Your task to perform on an android device: Clear all items from cart on costco. Search for "bose quietcomfort 35" on costco, select the first entry, add it to the cart, then select checkout. Image 0: 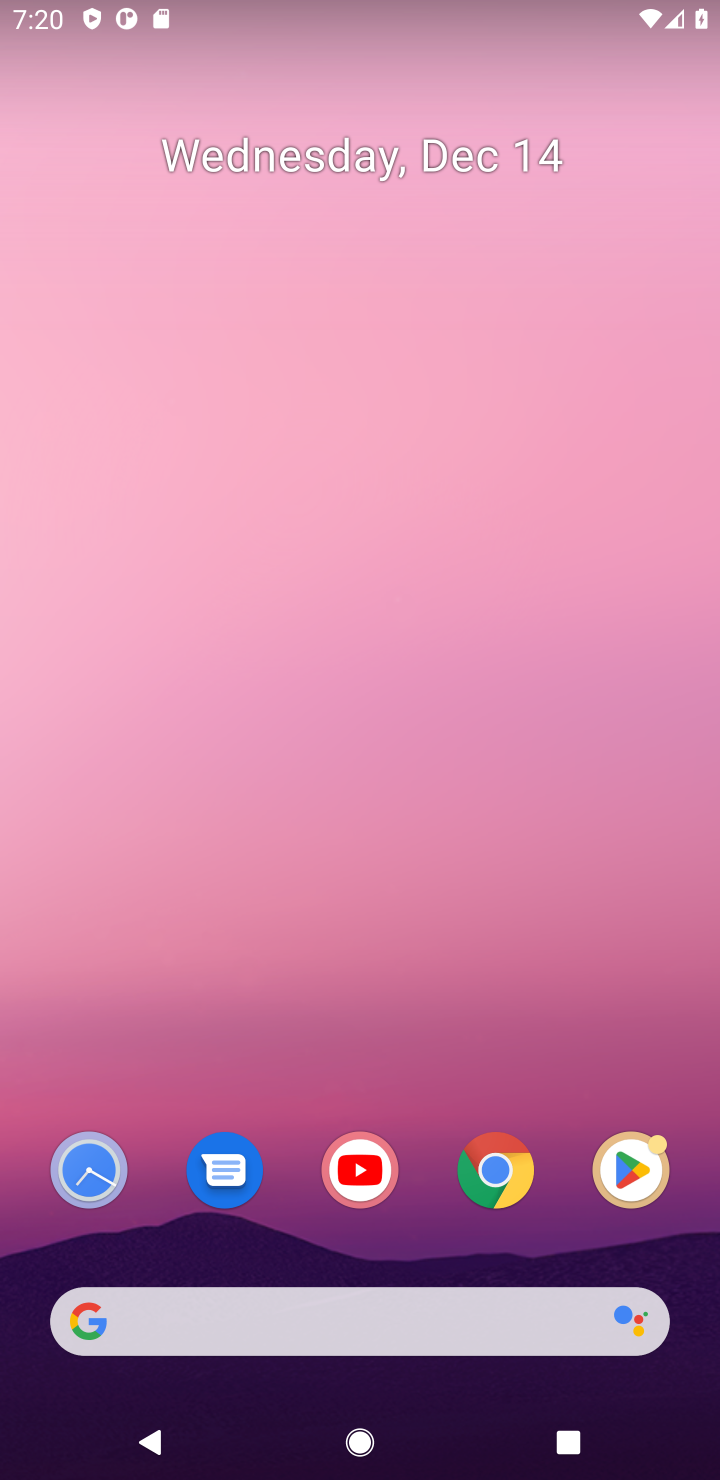
Step 0: click (488, 1187)
Your task to perform on an android device: Clear all items from cart on costco. Search for "bose quietcomfort 35" on costco, select the first entry, add it to the cart, then select checkout. Image 1: 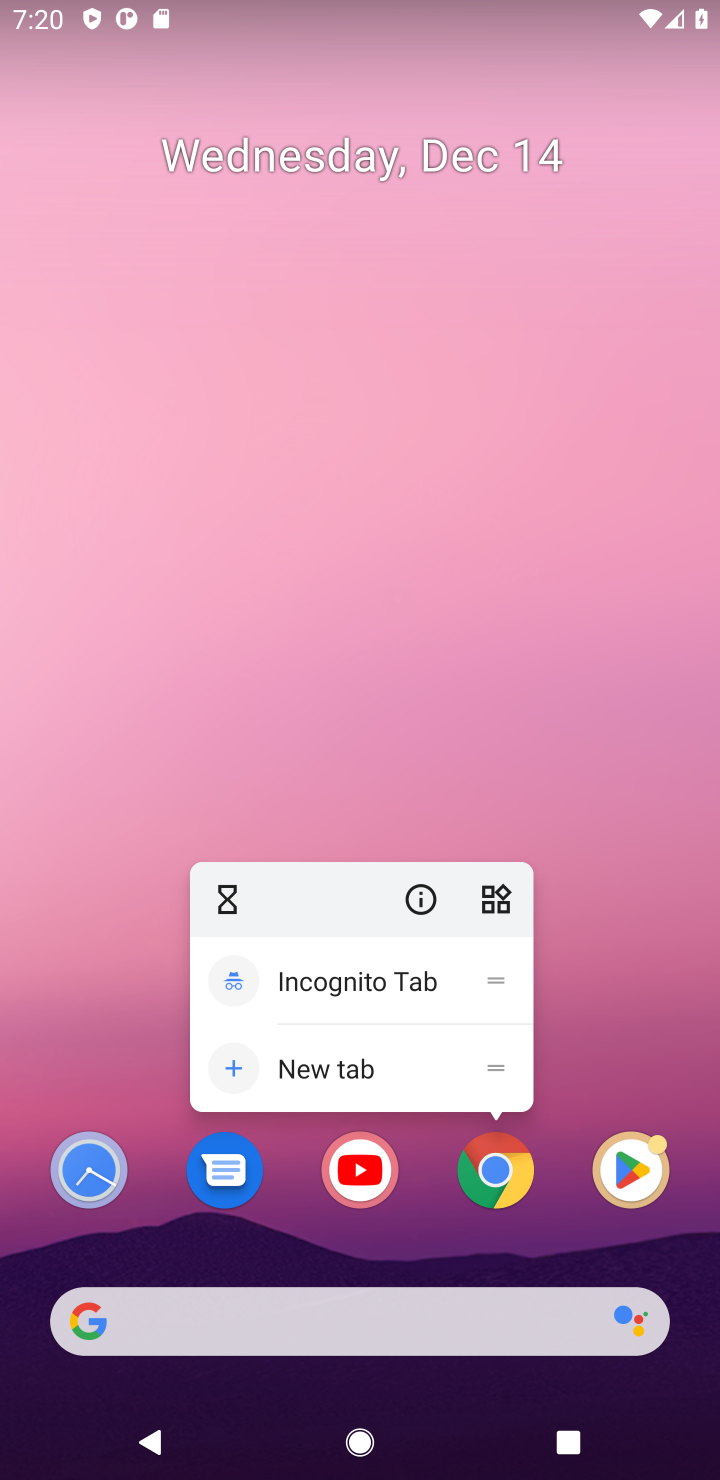
Step 1: click (488, 1187)
Your task to perform on an android device: Clear all items from cart on costco. Search for "bose quietcomfort 35" on costco, select the first entry, add it to the cart, then select checkout. Image 2: 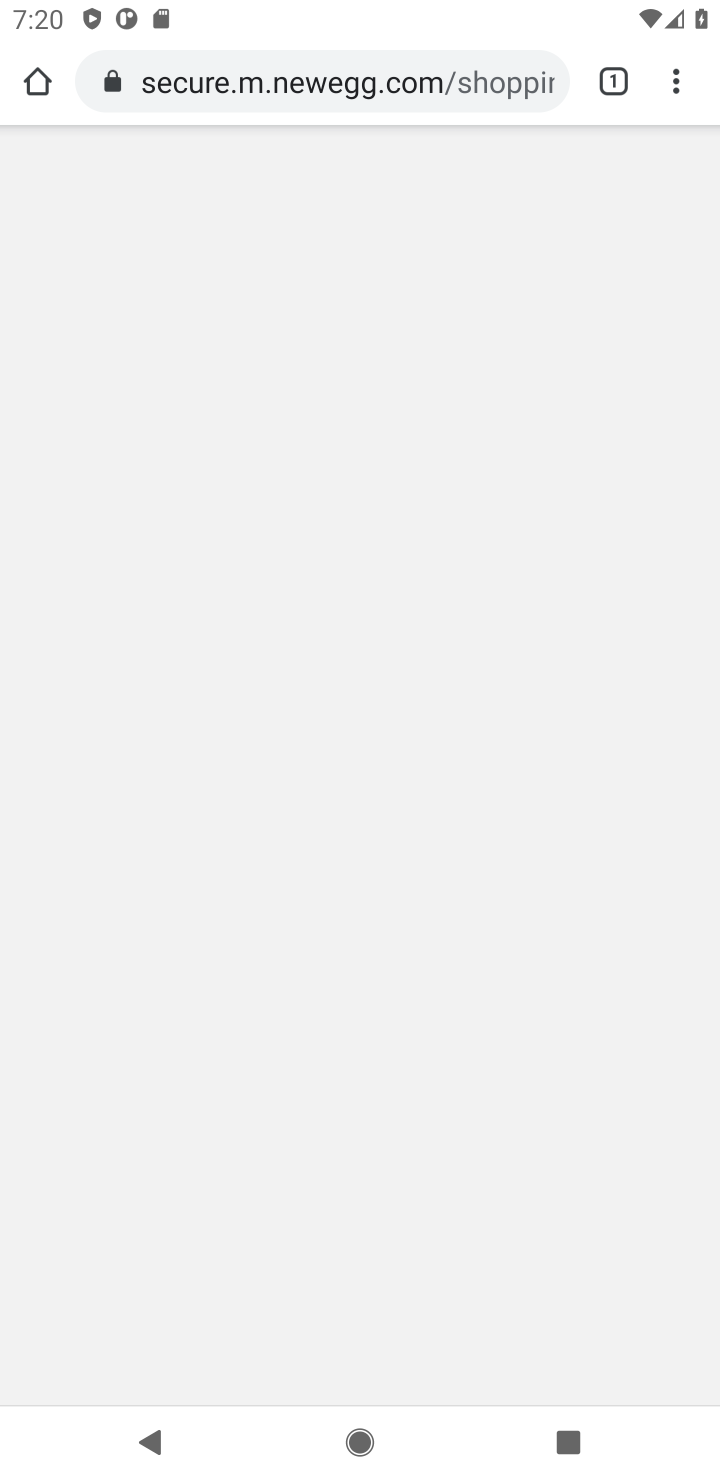
Step 2: click (403, 85)
Your task to perform on an android device: Clear all items from cart on costco. Search for "bose quietcomfort 35" on costco, select the first entry, add it to the cart, then select checkout. Image 3: 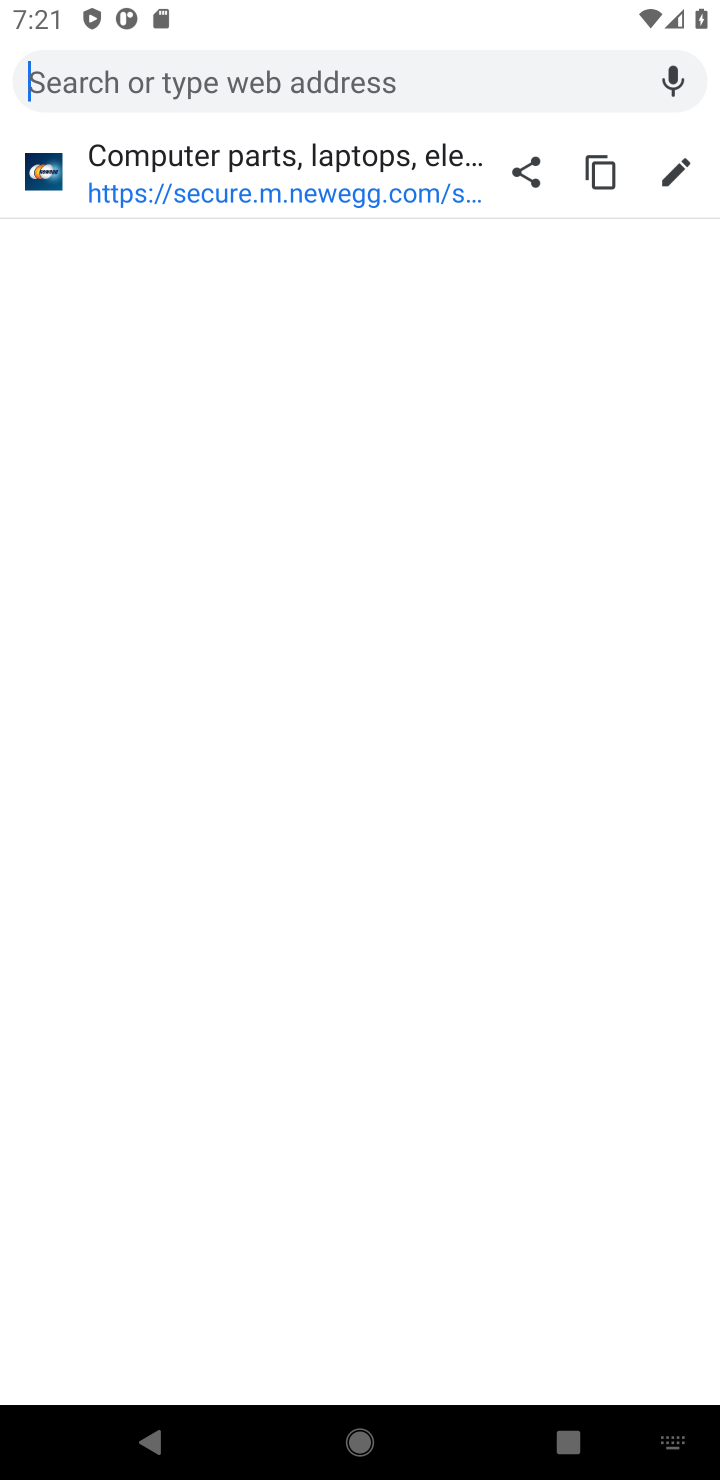
Step 3: type "costco"
Your task to perform on an android device: Clear all items from cart on costco. Search for "bose quietcomfort 35" on costco, select the first entry, add it to the cart, then select checkout. Image 4: 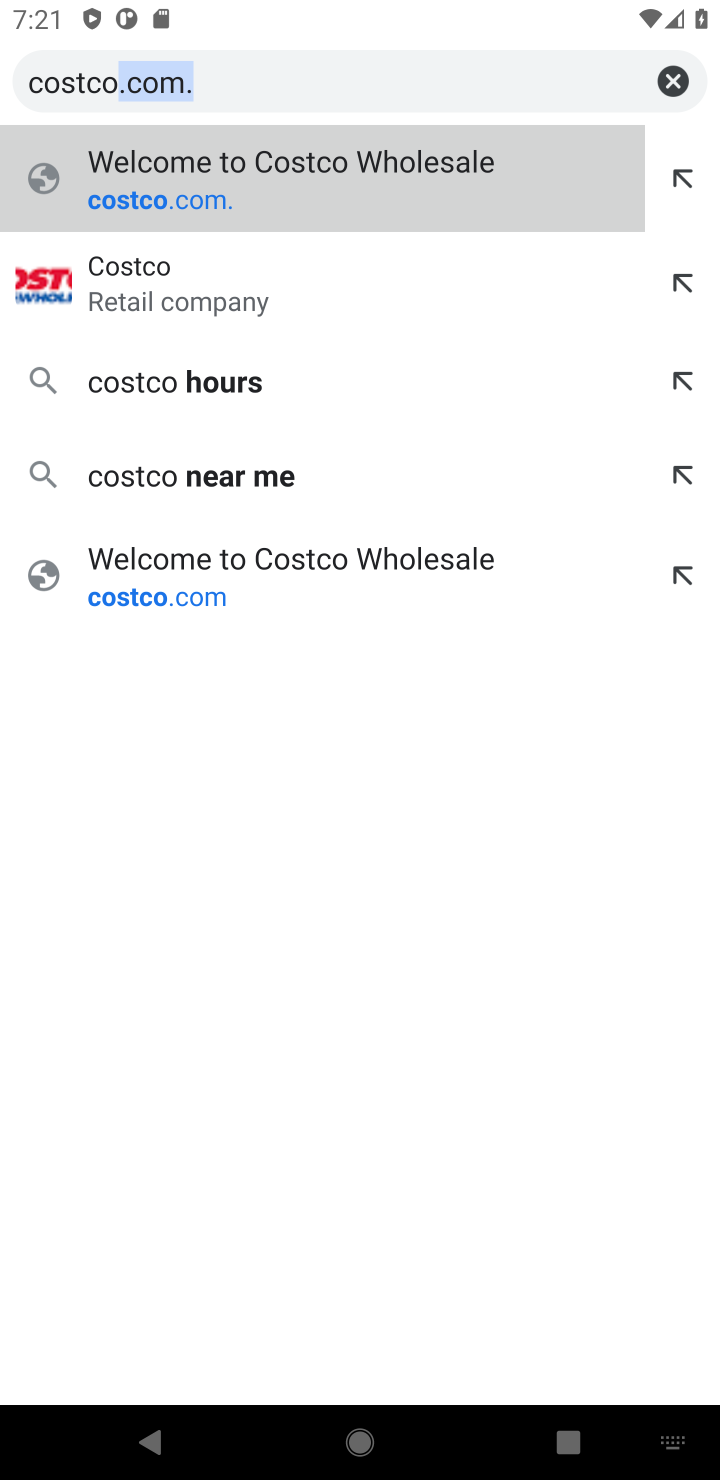
Step 4: click (307, 153)
Your task to perform on an android device: Clear all items from cart on costco. Search for "bose quietcomfort 35" on costco, select the first entry, add it to the cart, then select checkout. Image 5: 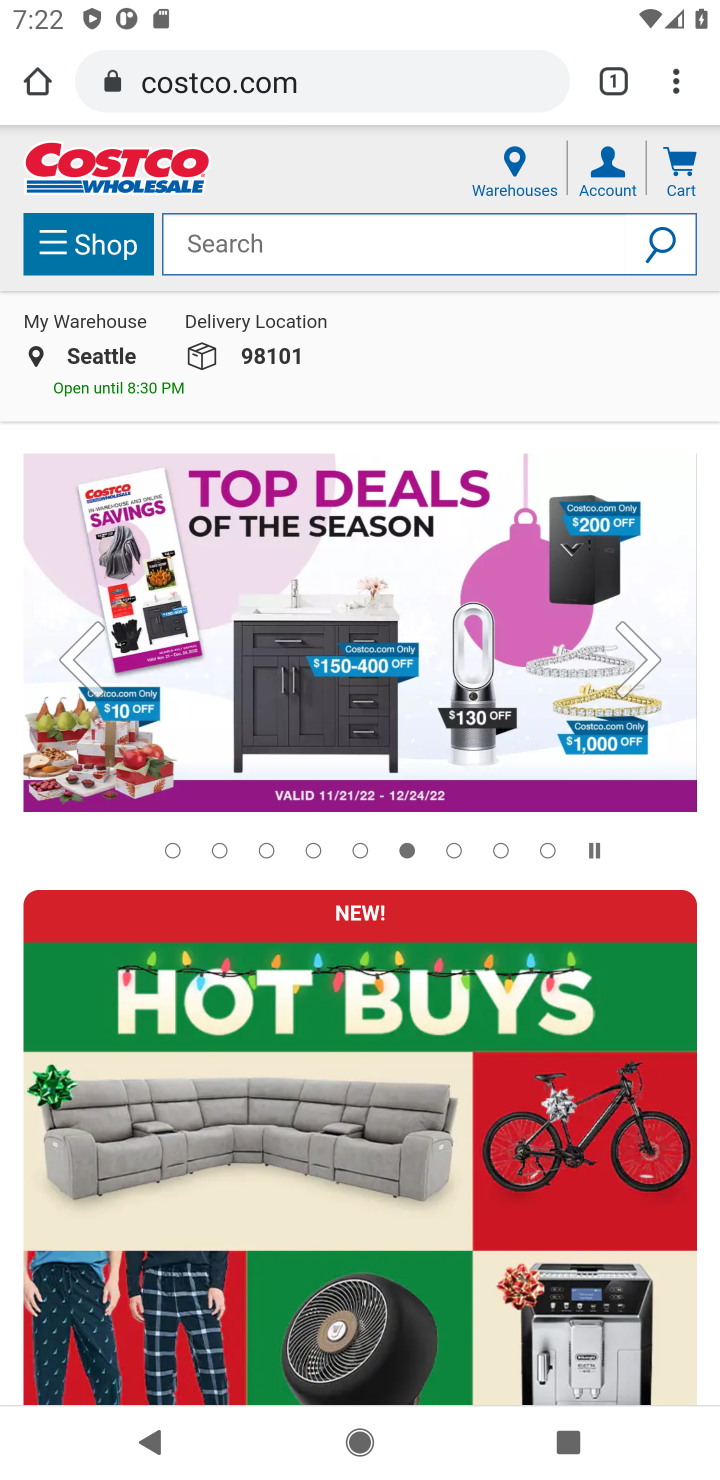
Step 5: click (540, 221)
Your task to perform on an android device: Clear all items from cart on costco. Search for "bose quietcomfort 35" on costco, select the first entry, add it to the cart, then select checkout. Image 6: 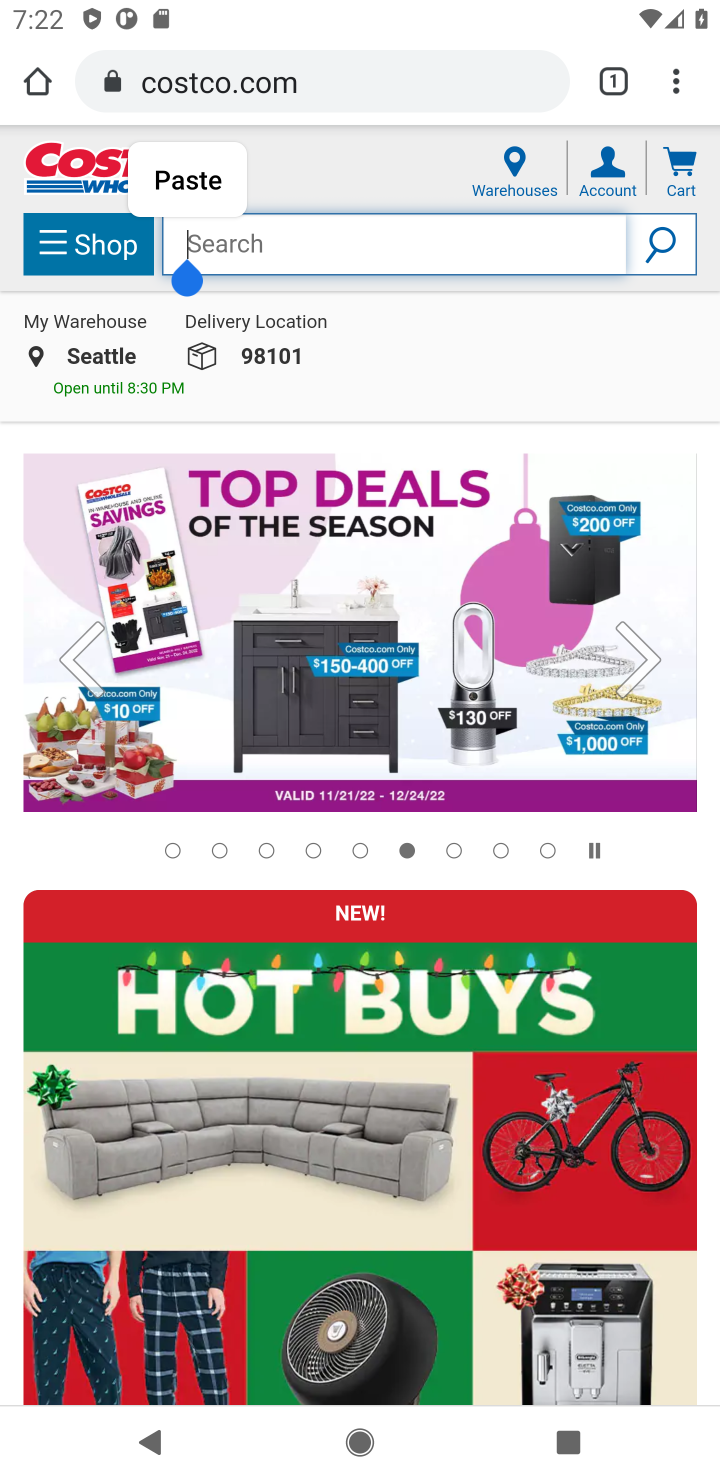
Step 6: type "bose quietcomfort 35"
Your task to perform on an android device: Clear all items from cart on costco. Search for "bose quietcomfort 35" on costco, select the first entry, add it to the cart, then select checkout. Image 7: 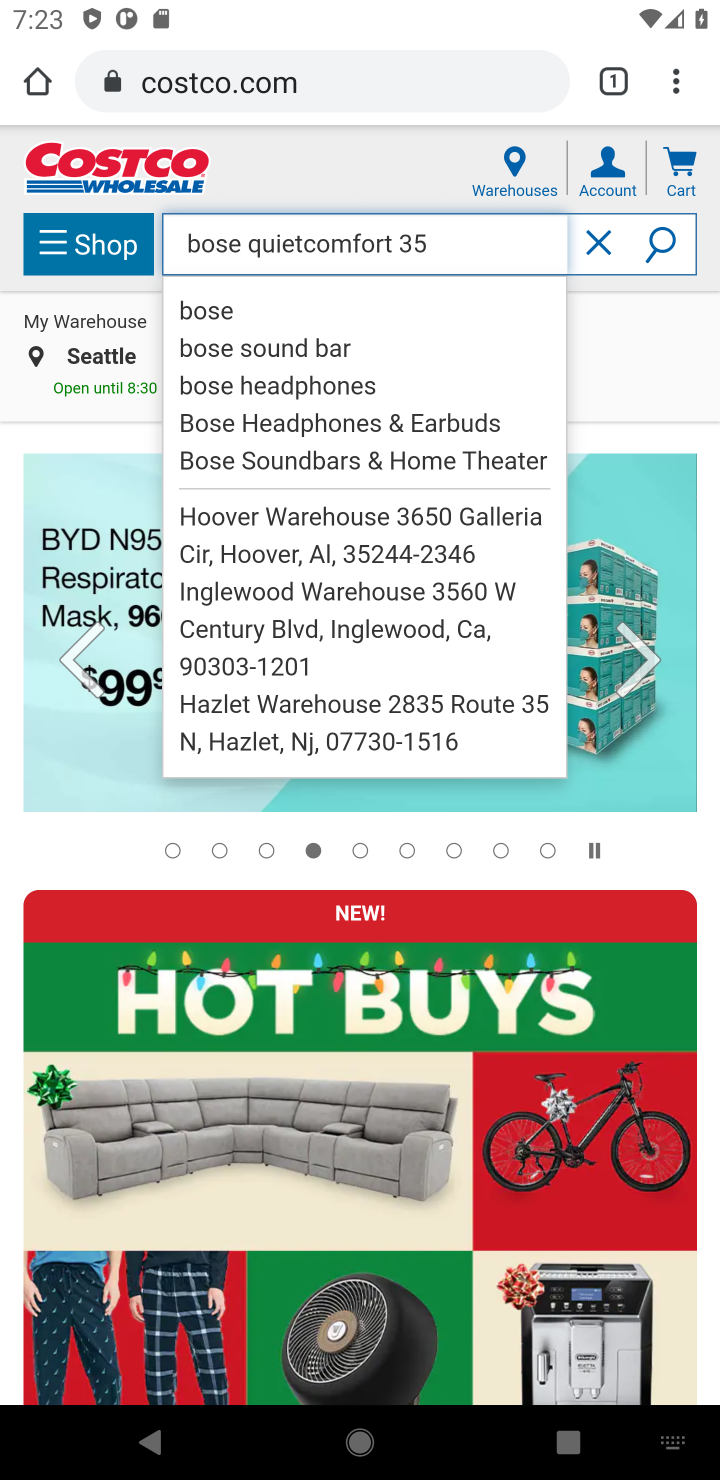
Step 7: click (202, 310)
Your task to perform on an android device: Clear all items from cart on costco. Search for "bose quietcomfort 35" on costco, select the first entry, add it to the cart, then select checkout. Image 8: 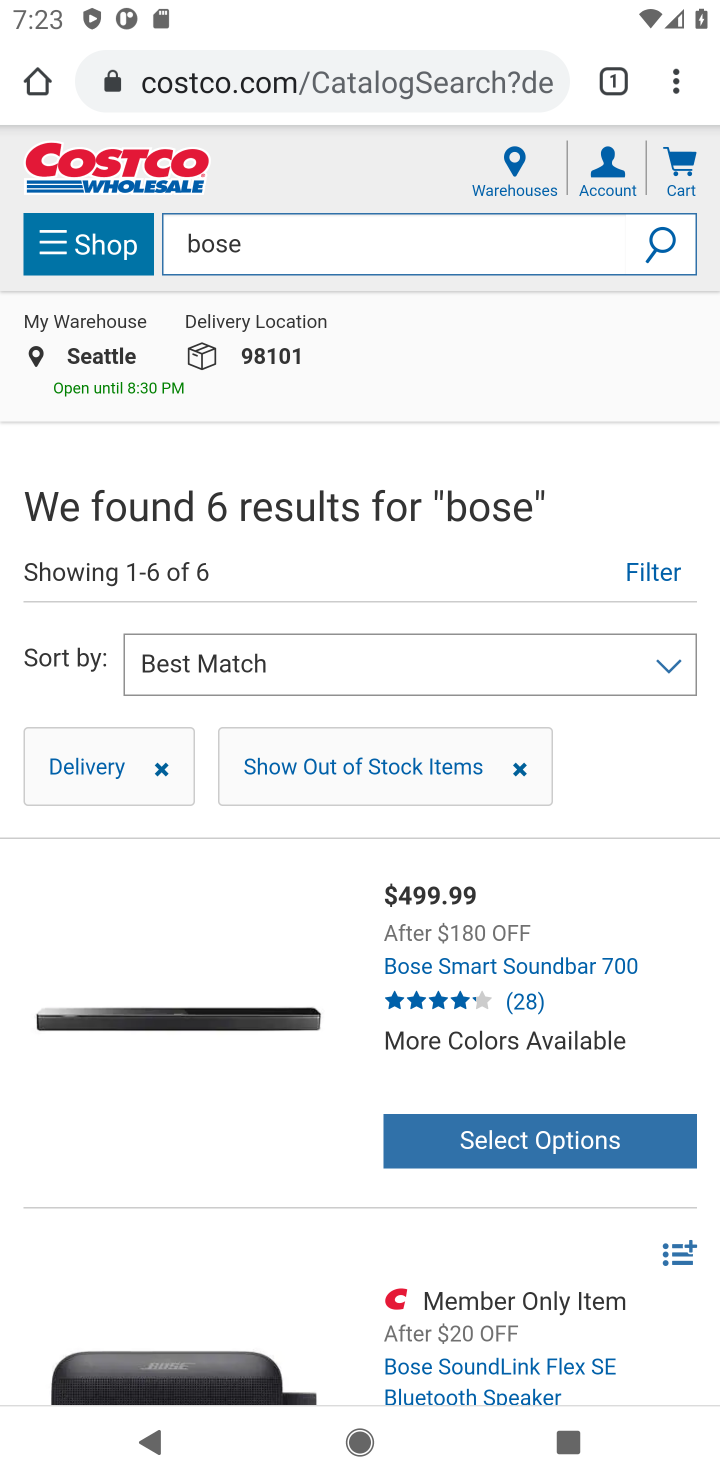
Step 8: click (227, 998)
Your task to perform on an android device: Clear all items from cart on costco. Search for "bose quietcomfort 35" on costco, select the first entry, add it to the cart, then select checkout. Image 9: 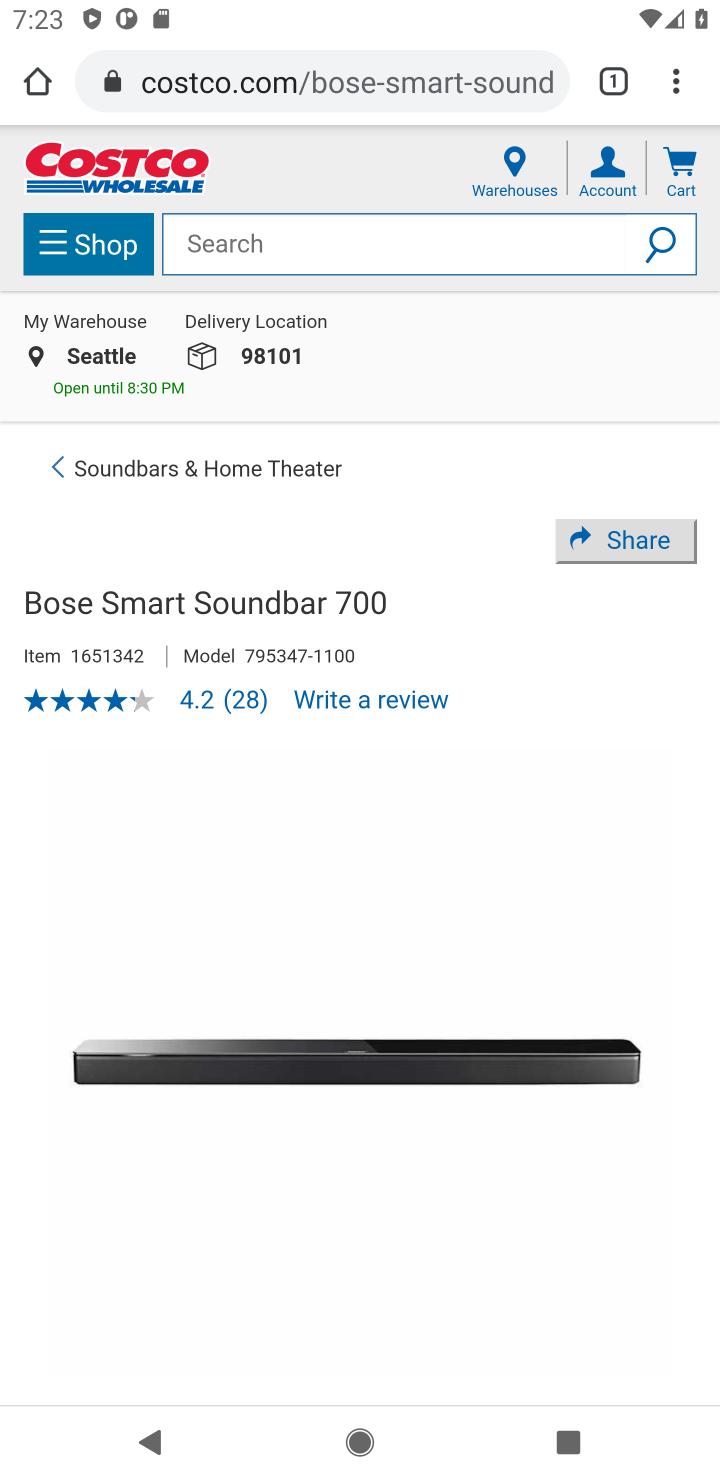
Step 9: drag from (389, 868) to (324, 104)
Your task to perform on an android device: Clear all items from cart on costco. Search for "bose quietcomfort 35" on costco, select the first entry, add it to the cart, then select checkout. Image 10: 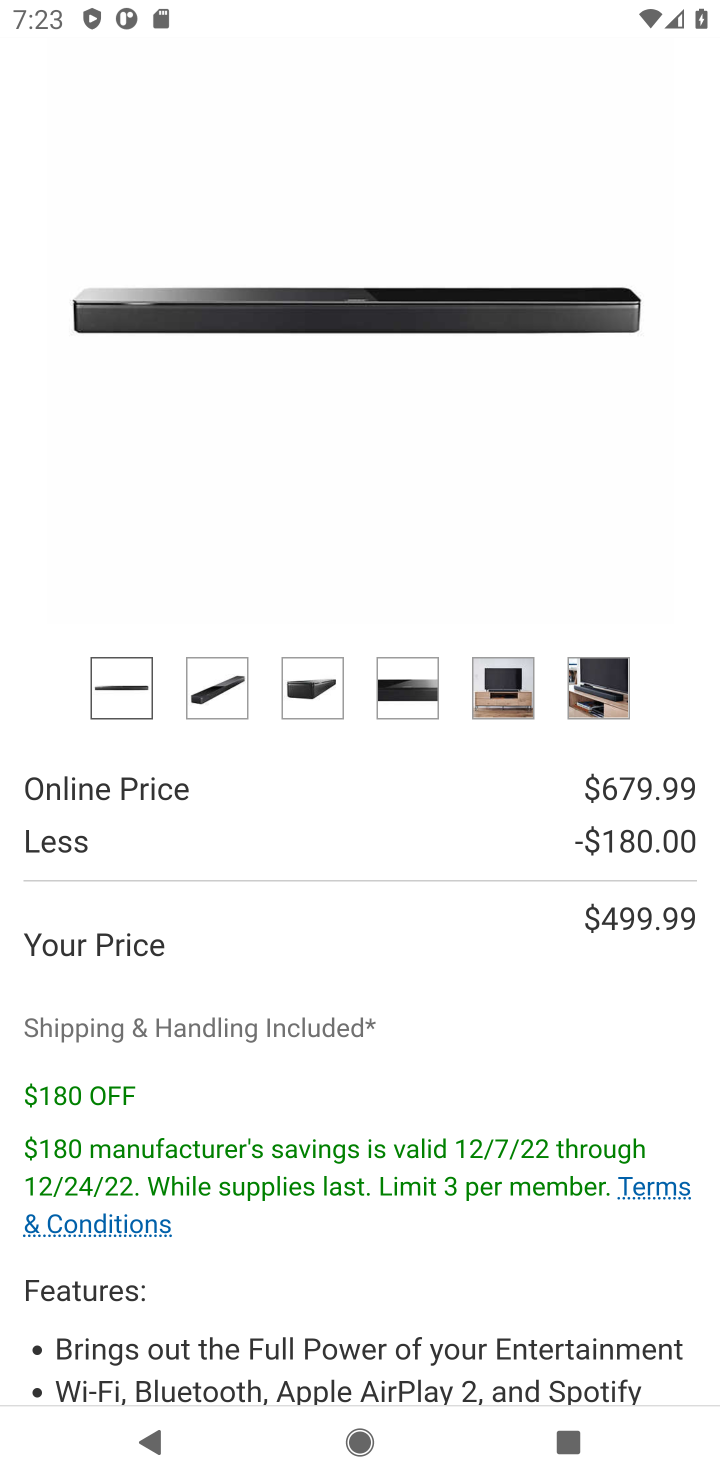
Step 10: drag from (401, 1274) to (391, 352)
Your task to perform on an android device: Clear all items from cart on costco. Search for "bose quietcomfort 35" on costco, select the first entry, add it to the cart, then select checkout. Image 11: 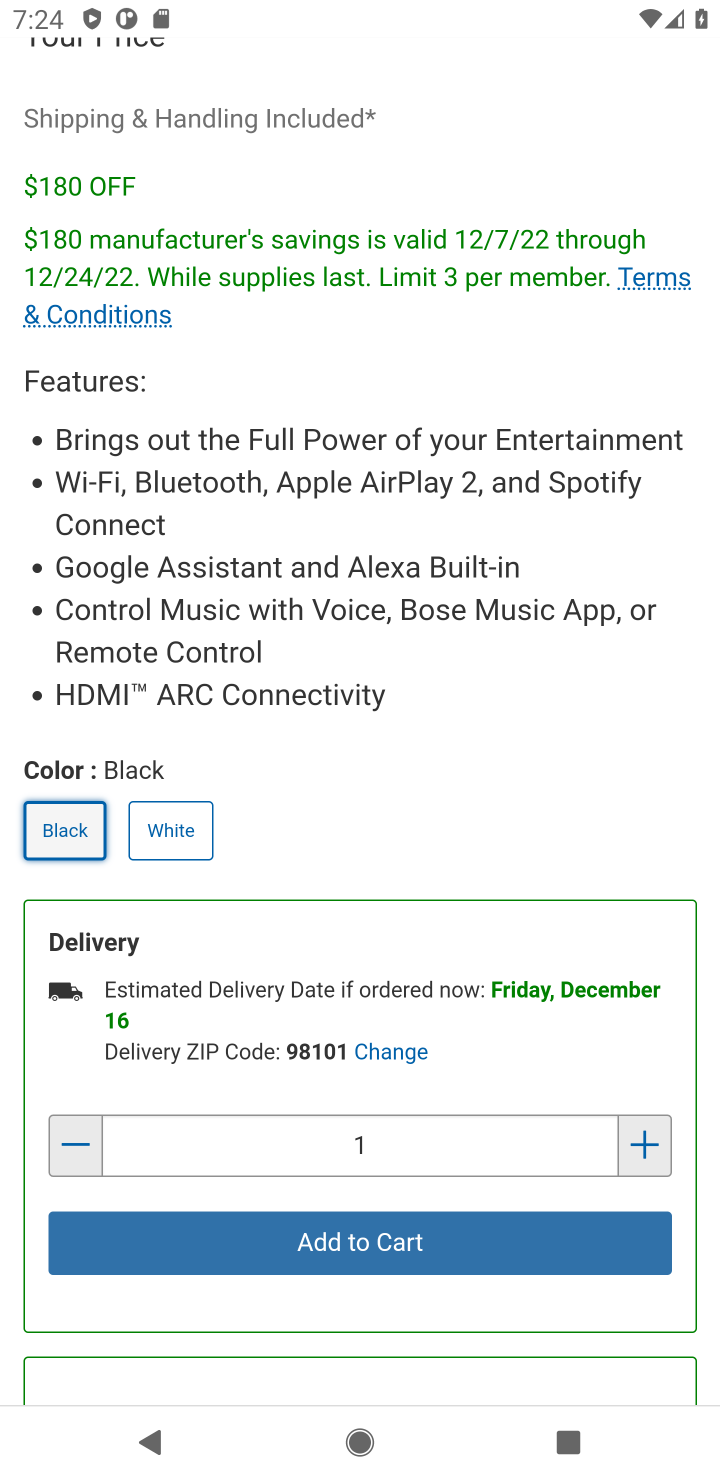
Step 11: click (376, 1237)
Your task to perform on an android device: Clear all items from cart on costco. Search for "bose quietcomfort 35" on costco, select the first entry, add it to the cart, then select checkout. Image 12: 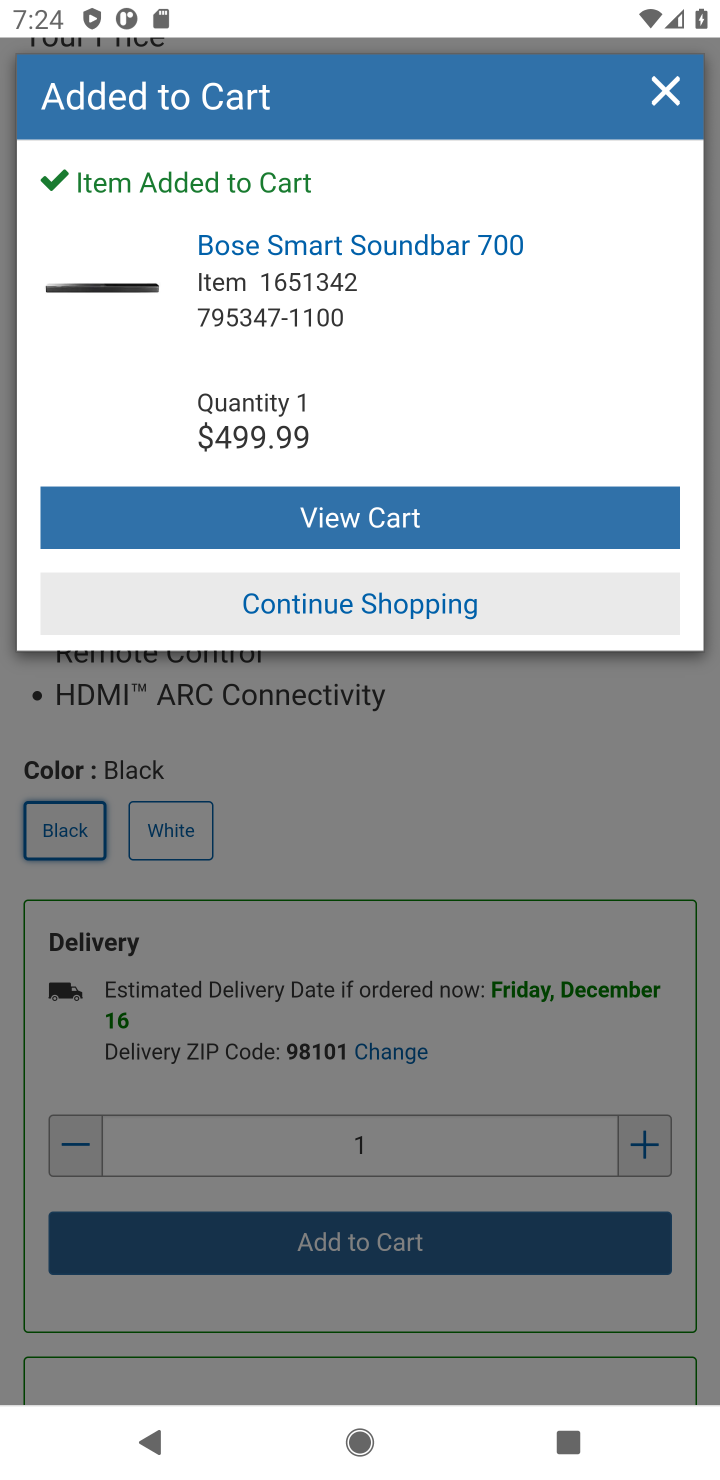
Step 12: click (368, 520)
Your task to perform on an android device: Clear all items from cart on costco. Search for "bose quietcomfort 35" on costco, select the first entry, add it to the cart, then select checkout. Image 13: 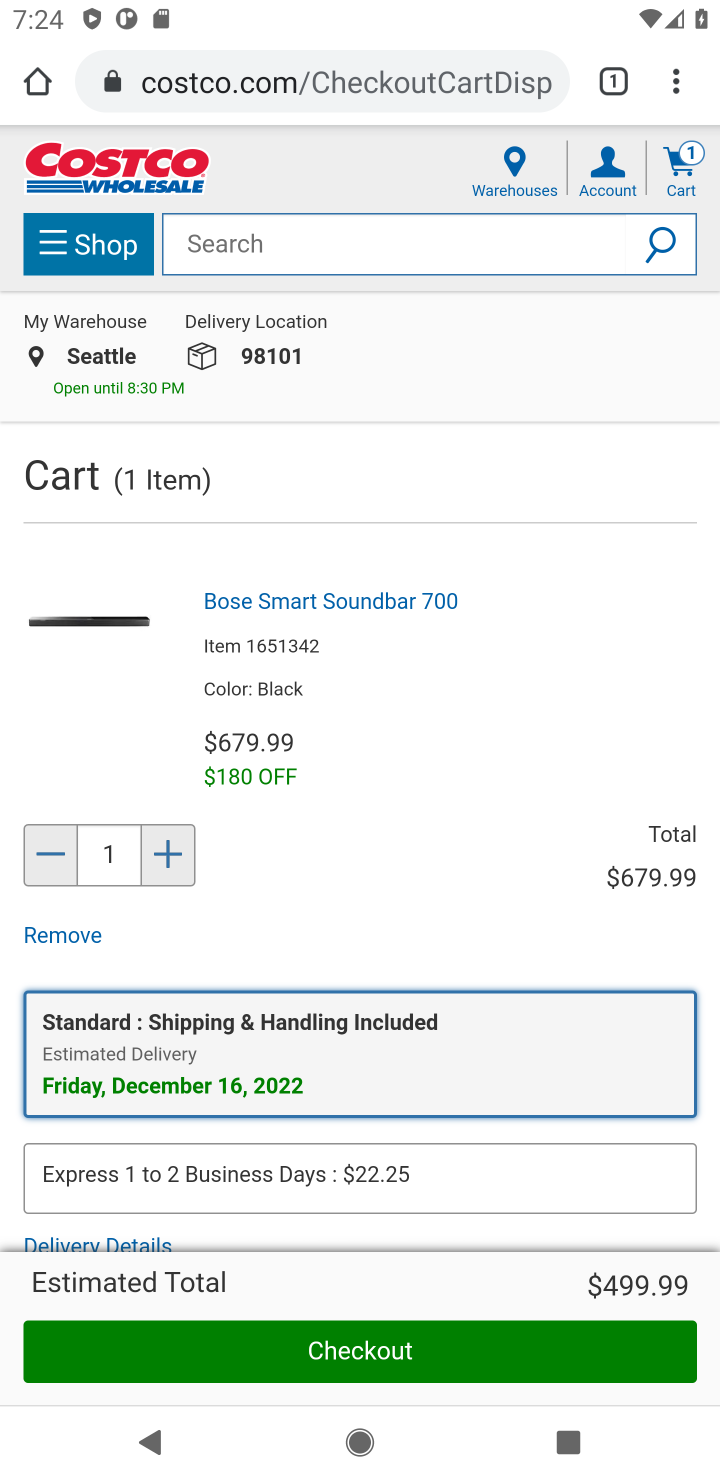
Step 13: click (370, 1363)
Your task to perform on an android device: Clear all items from cart on costco. Search for "bose quietcomfort 35" on costco, select the first entry, add it to the cart, then select checkout. Image 14: 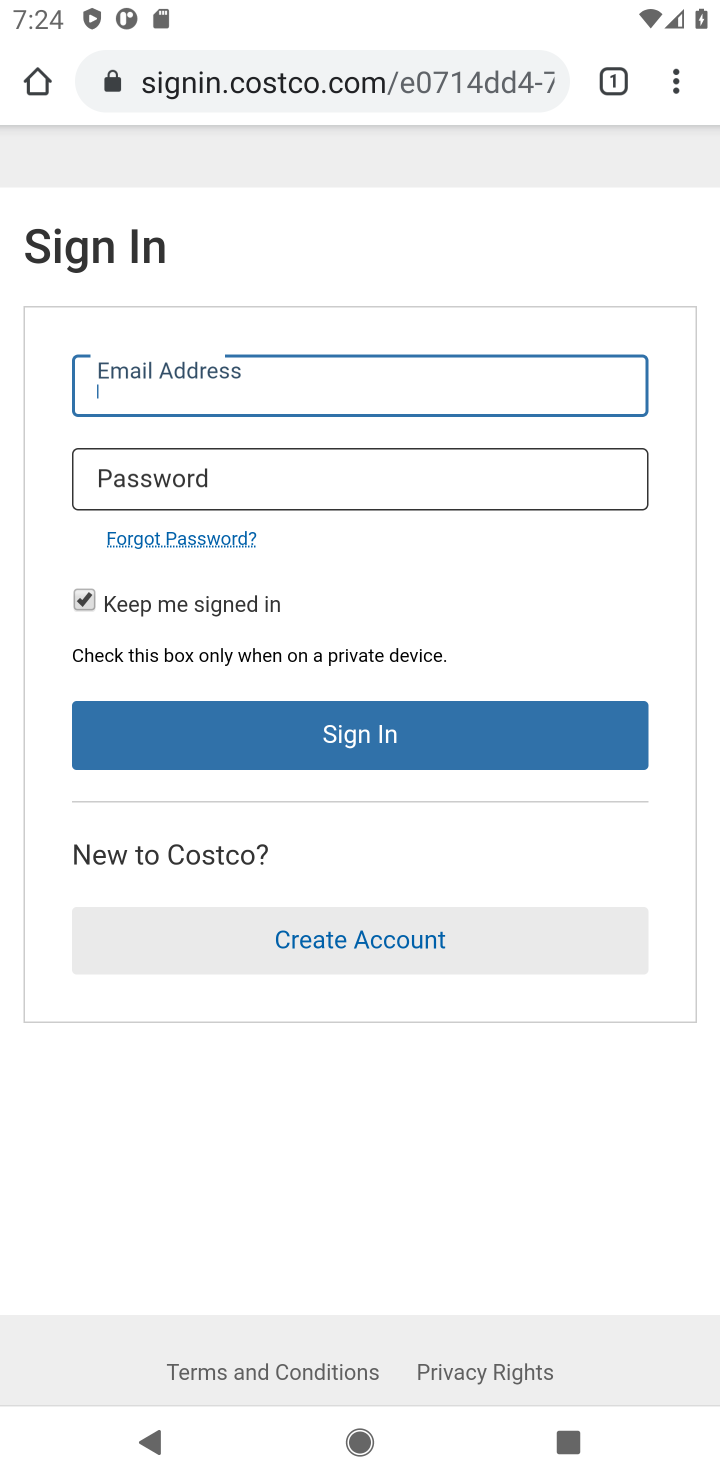
Step 14: task complete